Your task to perform on an android device: turn off translation in the chrome app Image 0: 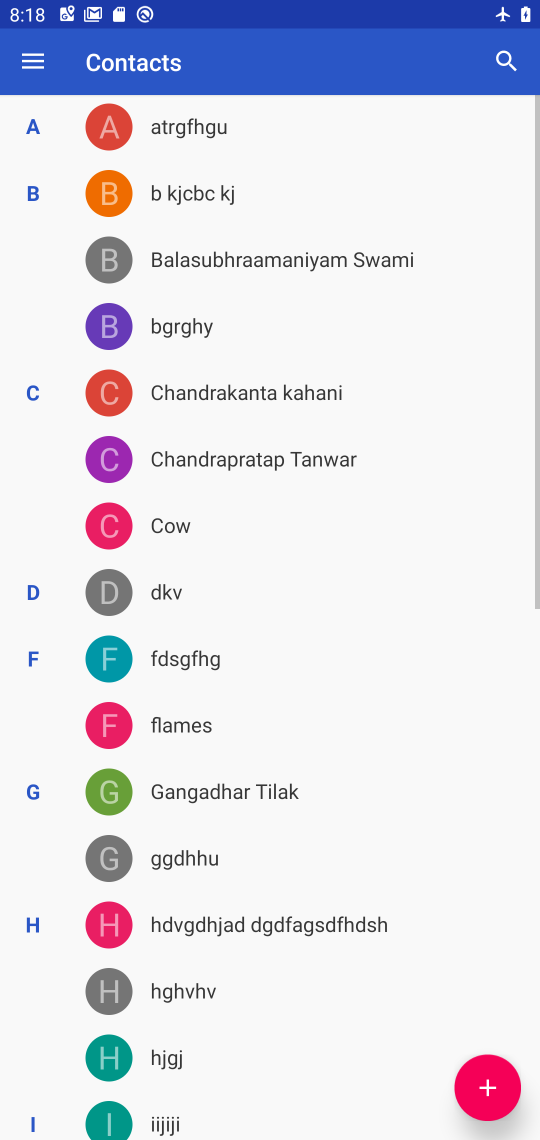
Step 0: press home button
Your task to perform on an android device: turn off translation in the chrome app Image 1: 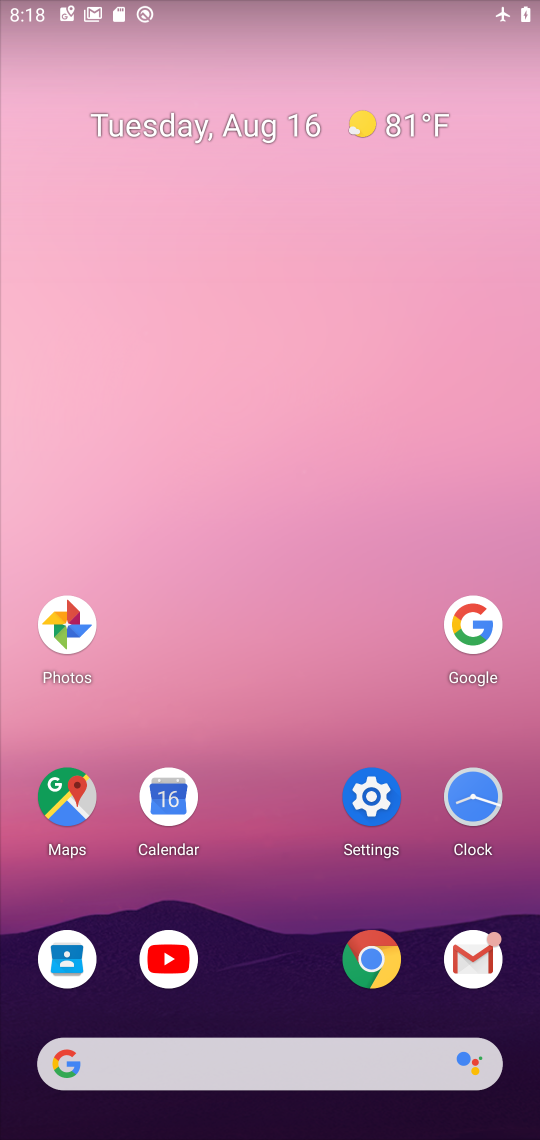
Step 1: click (366, 947)
Your task to perform on an android device: turn off translation in the chrome app Image 2: 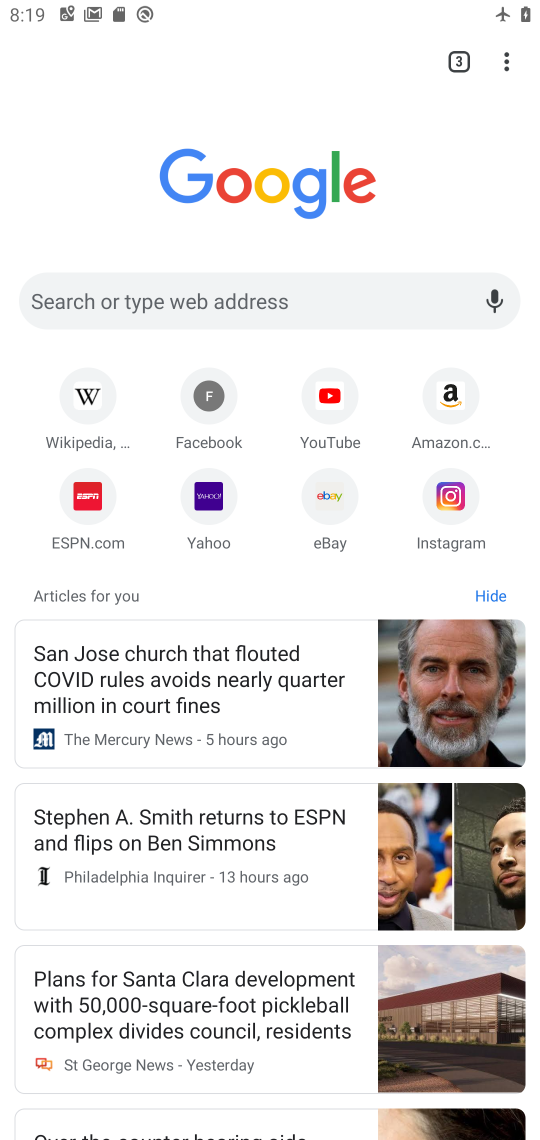
Step 2: click (510, 60)
Your task to perform on an android device: turn off translation in the chrome app Image 3: 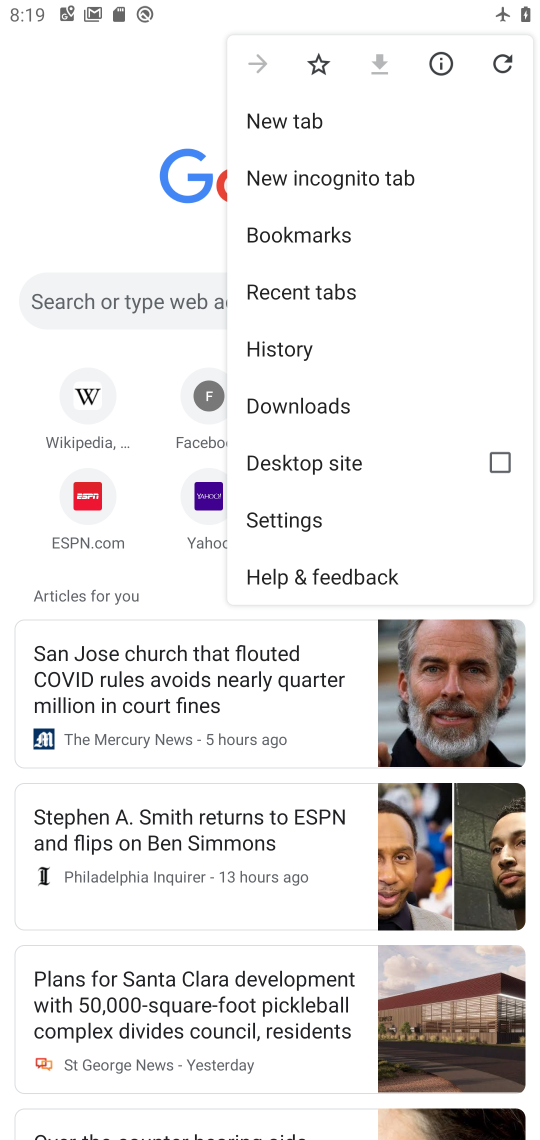
Step 3: click (302, 519)
Your task to perform on an android device: turn off translation in the chrome app Image 4: 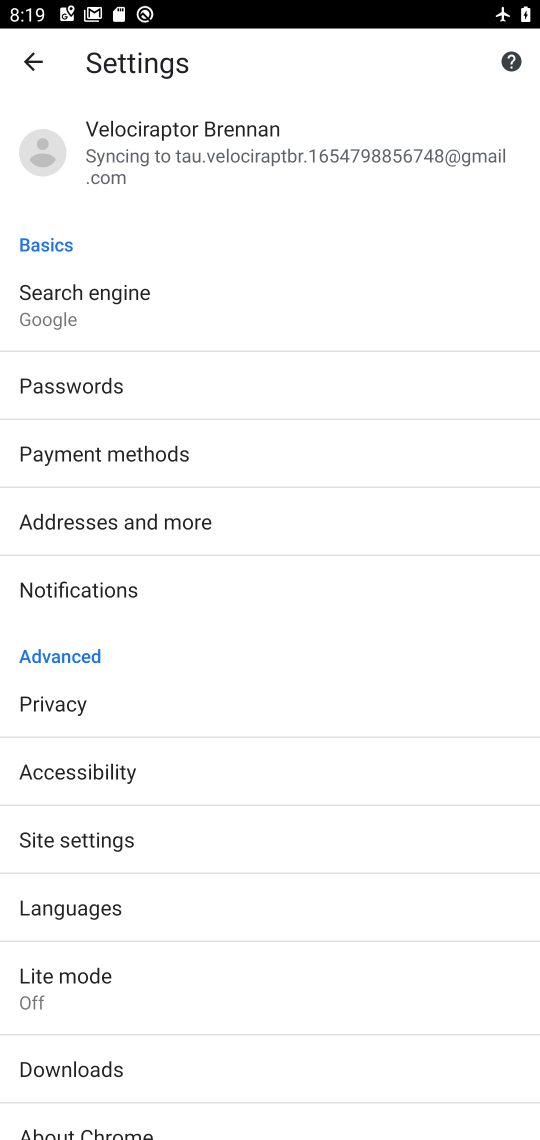
Step 4: click (77, 902)
Your task to perform on an android device: turn off translation in the chrome app Image 5: 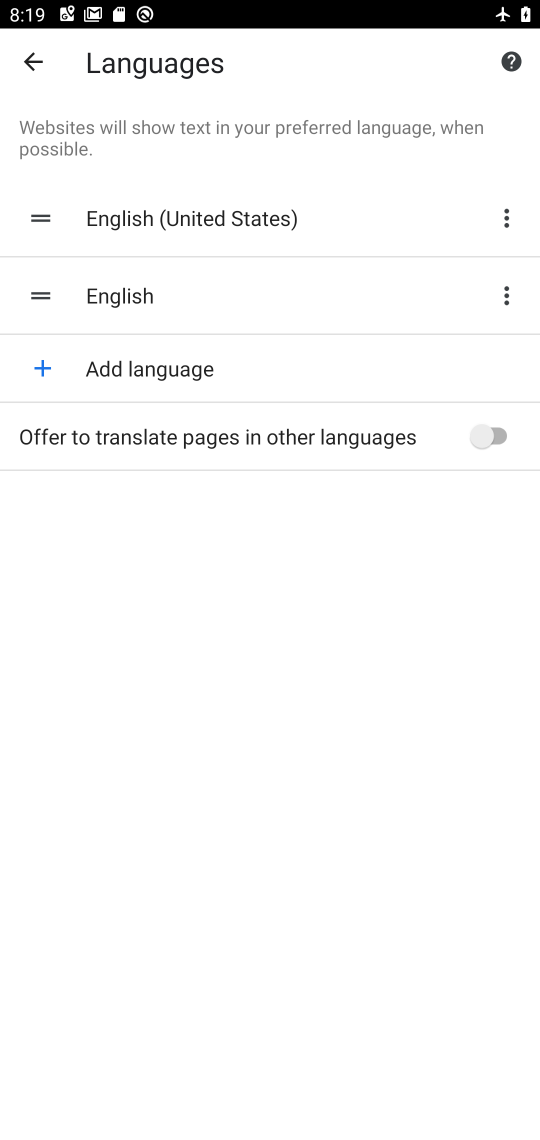
Step 5: task complete